Your task to perform on an android device: make emails show in primary in the gmail app Image 0: 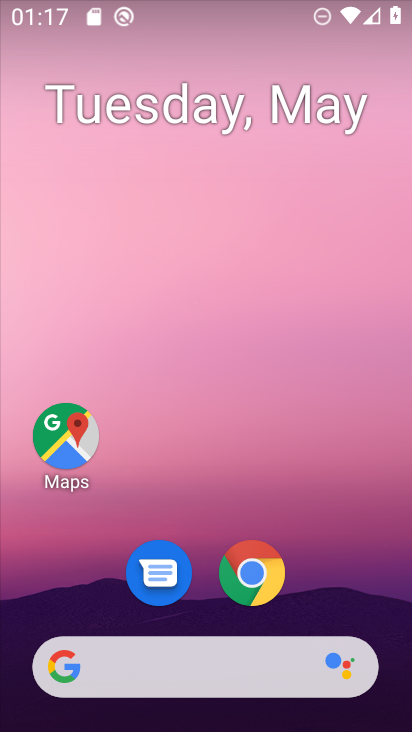
Step 0: drag from (336, 450) to (289, 76)
Your task to perform on an android device: make emails show in primary in the gmail app Image 1: 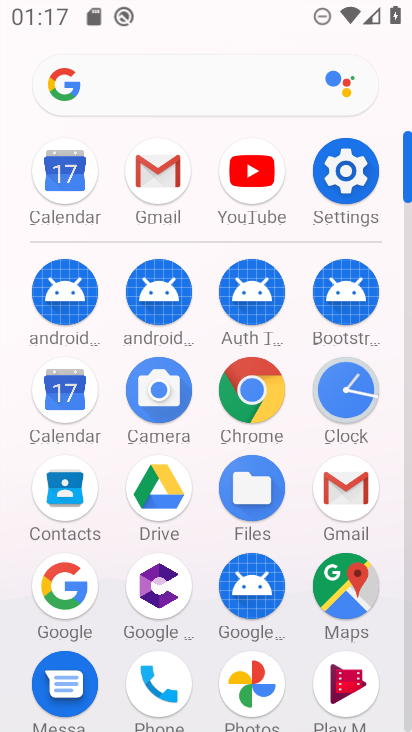
Step 1: click (347, 483)
Your task to perform on an android device: make emails show in primary in the gmail app Image 2: 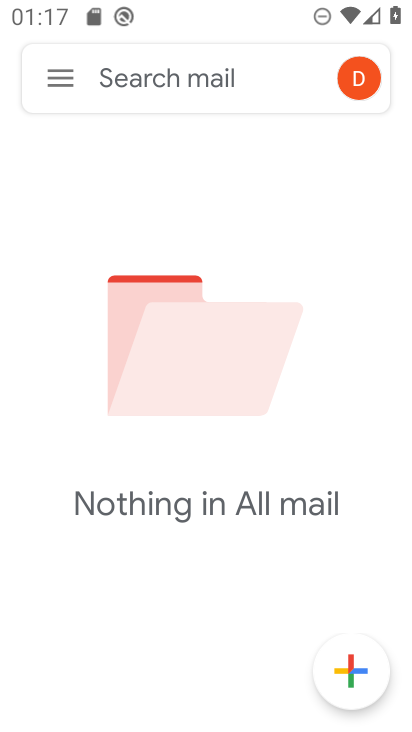
Step 2: click (62, 87)
Your task to perform on an android device: make emails show in primary in the gmail app Image 3: 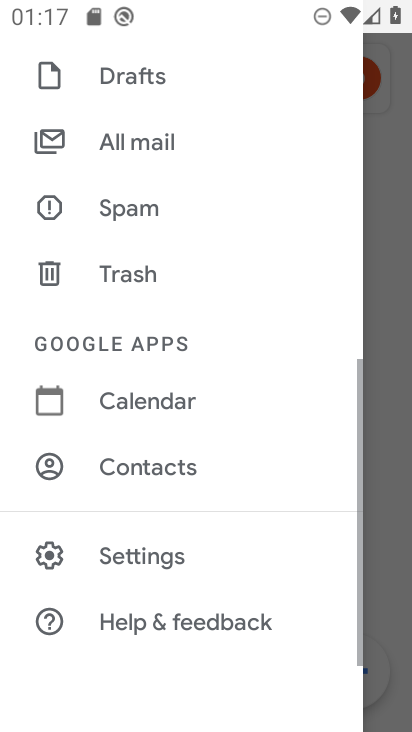
Step 3: drag from (228, 340) to (227, 694)
Your task to perform on an android device: make emails show in primary in the gmail app Image 4: 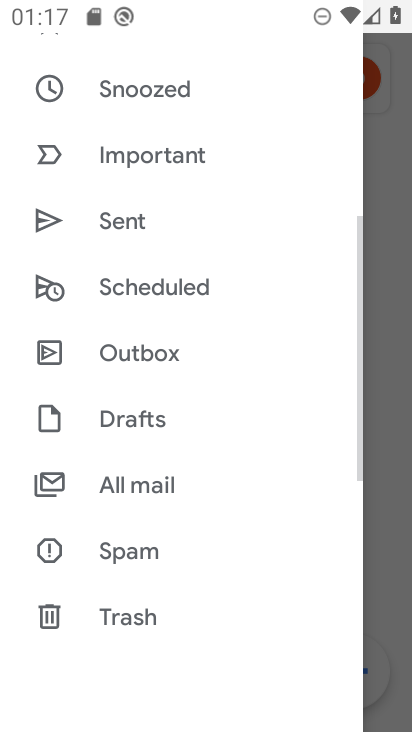
Step 4: drag from (220, 276) to (222, 580)
Your task to perform on an android device: make emails show in primary in the gmail app Image 5: 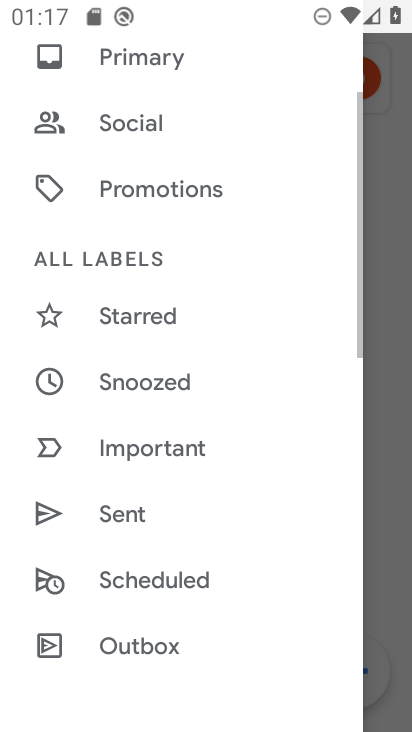
Step 5: drag from (213, 137) to (209, 542)
Your task to perform on an android device: make emails show in primary in the gmail app Image 6: 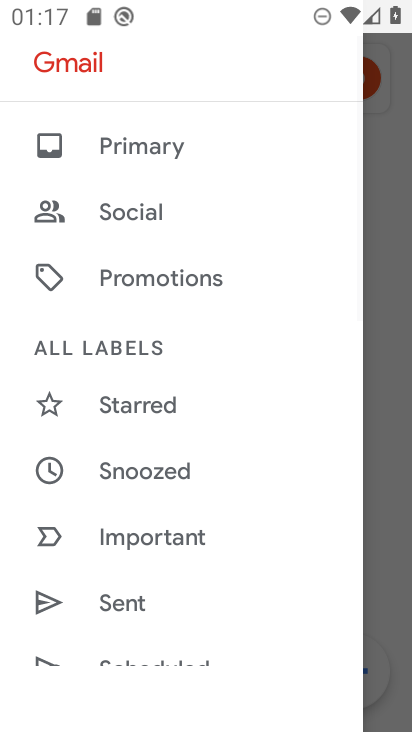
Step 6: click (162, 151)
Your task to perform on an android device: make emails show in primary in the gmail app Image 7: 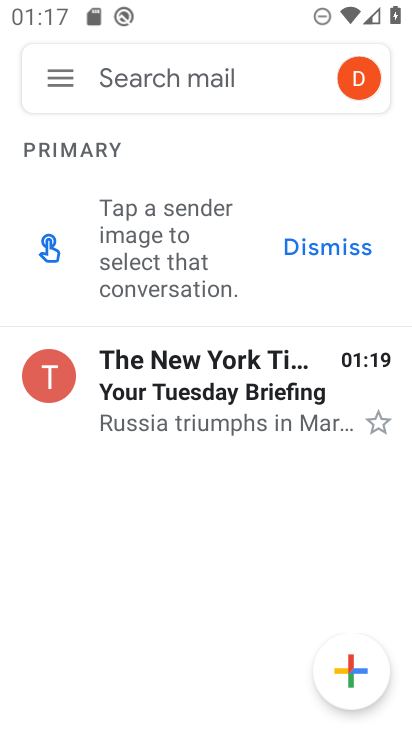
Step 7: task complete